Your task to perform on an android device: What's the weather today? Image 0: 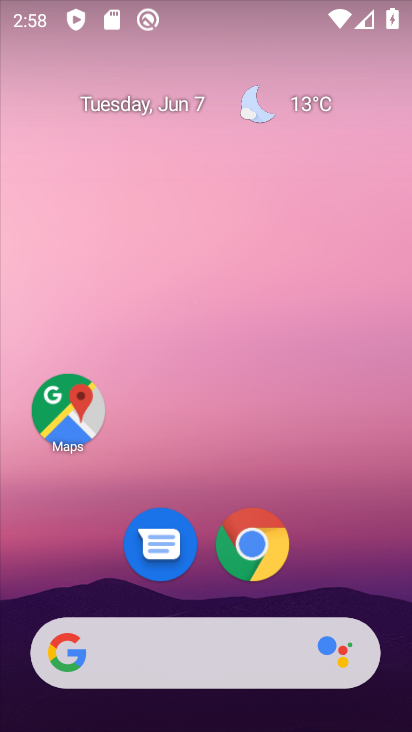
Step 0: press home button
Your task to perform on an android device: What's the weather today? Image 1: 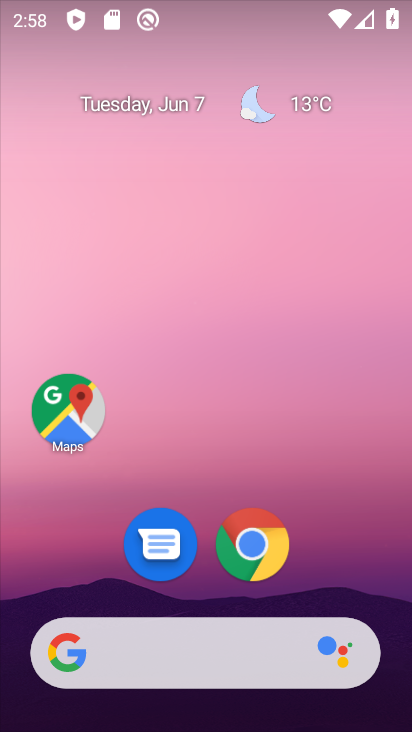
Step 1: click (310, 99)
Your task to perform on an android device: What's the weather today? Image 2: 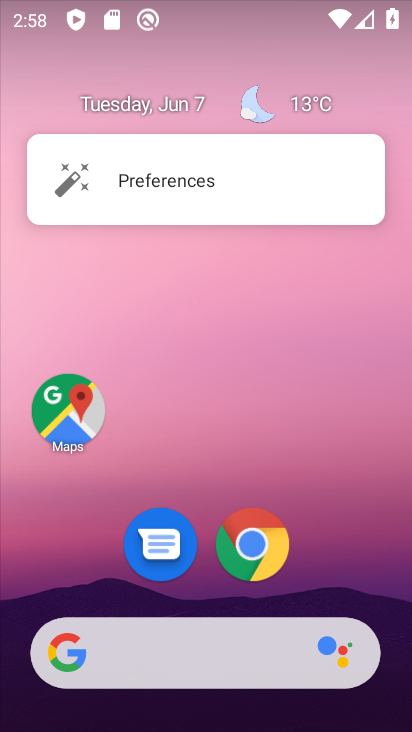
Step 2: click (294, 100)
Your task to perform on an android device: What's the weather today? Image 3: 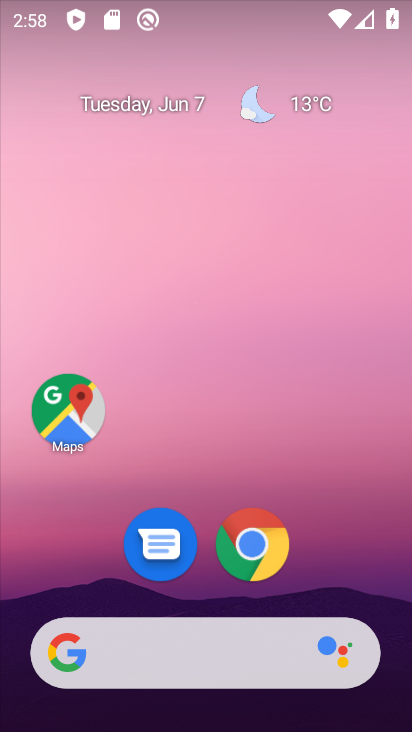
Step 3: click (302, 102)
Your task to perform on an android device: What's the weather today? Image 4: 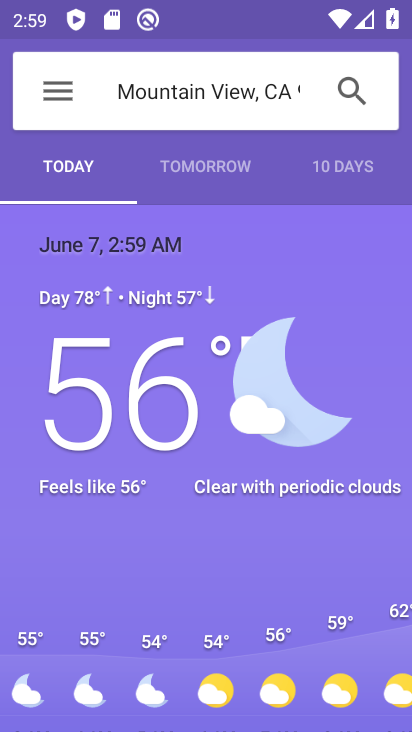
Step 4: drag from (220, 625) to (222, 312)
Your task to perform on an android device: What's the weather today? Image 5: 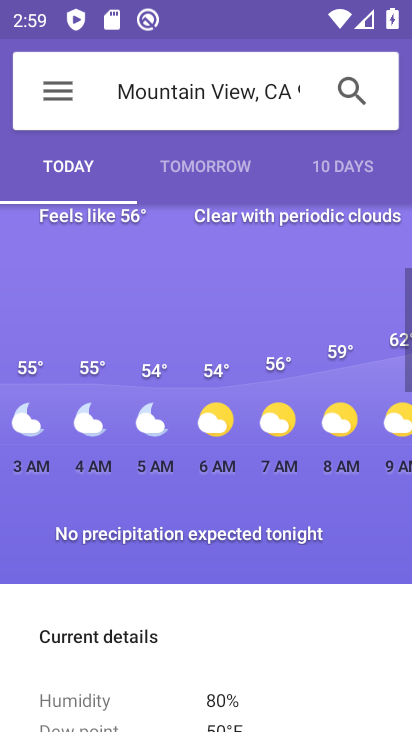
Step 5: click (238, 225)
Your task to perform on an android device: What's the weather today? Image 6: 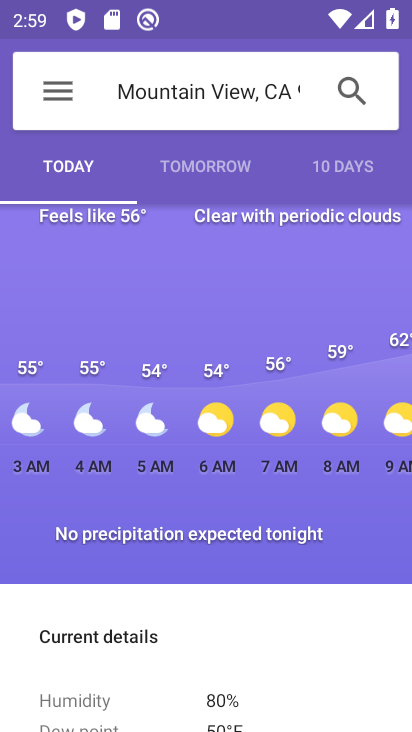
Step 6: task complete